Your task to perform on an android device: Do I have any events this weekend? Image 0: 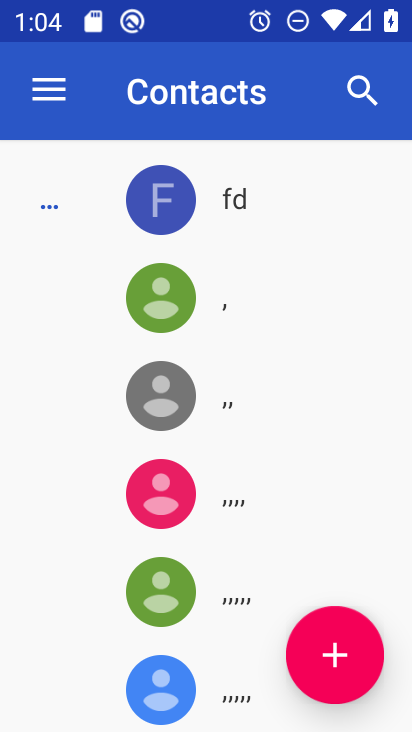
Step 0: press home button
Your task to perform on an android device: Do I have any events this weekend? Image 1: 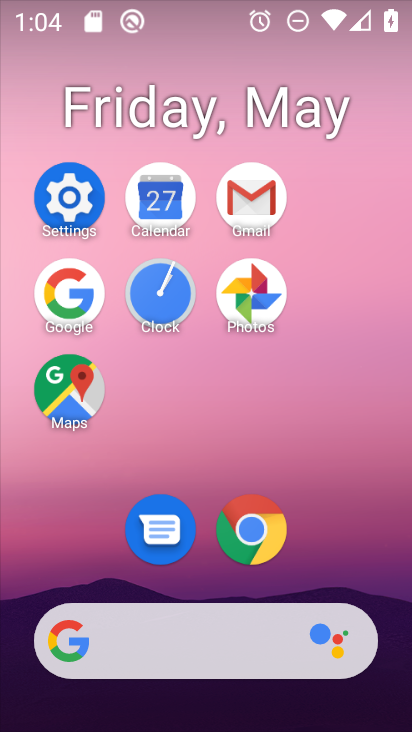
Step 1: click (173, 198)
Your task to perform on an android device: Do I have any events this weekend? Image 2: 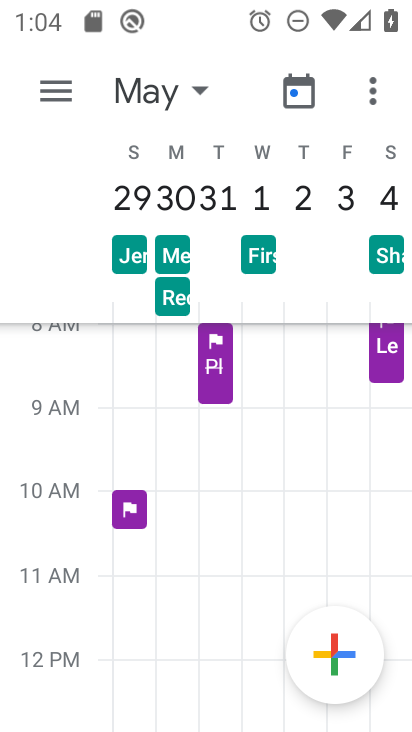
Step 2: click (138, 192)
Your task to perform on an android device: Do I have any events this weekend? Image 3: 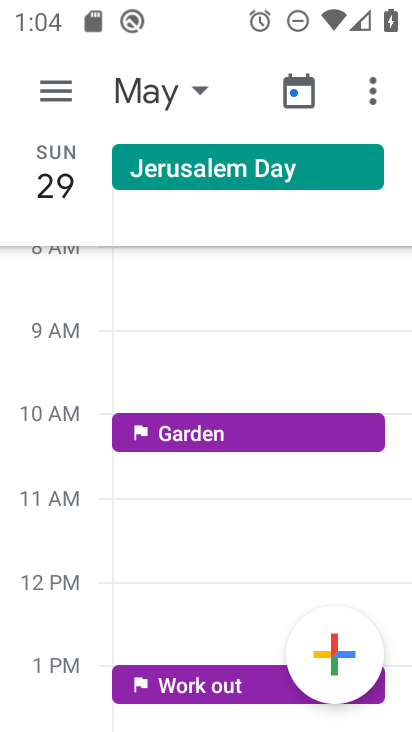
Step 3: task complete